Your task to perform on an android device: set default search engine in the chrome app Image 0: 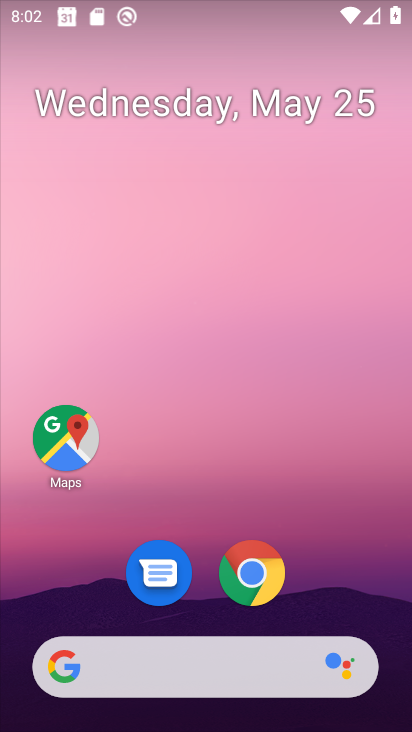
Step 0: click (243, 571)
Your task to perform on an android device: set default search engine in the chrome app Image 1: 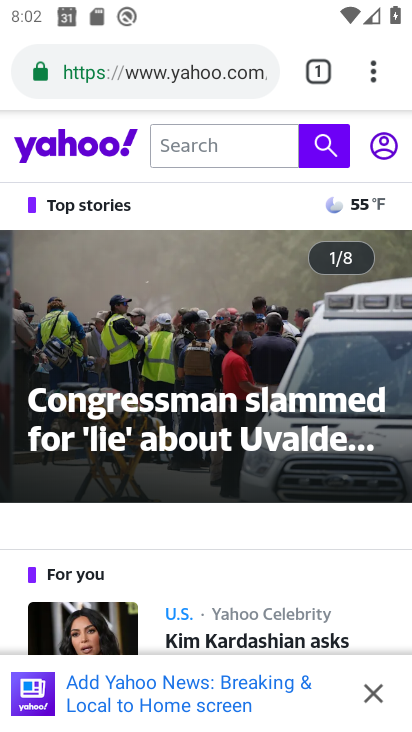
Step 1: click (371, 70)
Your task to perform on an android device: set default search engine in the chrome app Image 2: 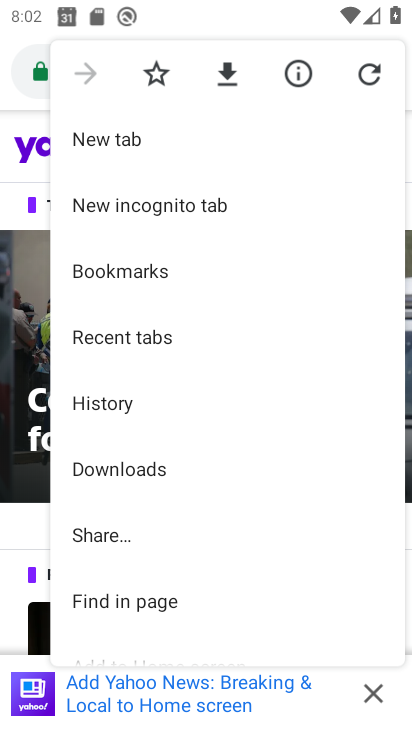
Step 2: drag from (250, 615) to (248, 339)
Your task to perform on an android device: set default search engine in the chrome app Image 3: 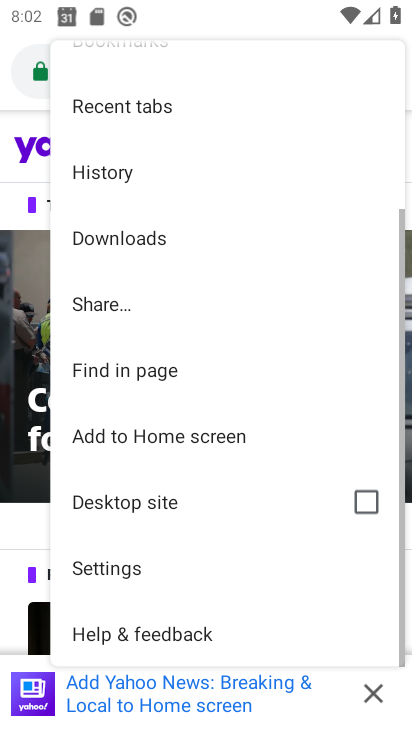
Step 3: click (130, 569)
Your task to perform on an android device: set default search engine in the chrome app Image 4: 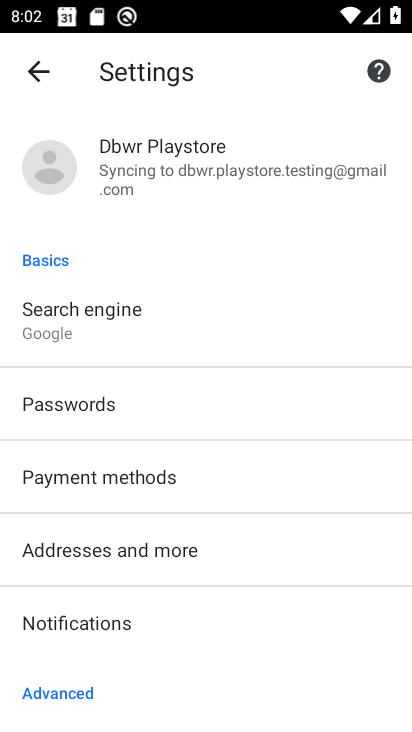
Step 4: click (73, 317)
Your task to perform on an android device: set default search engine in the chrome app Image 5: 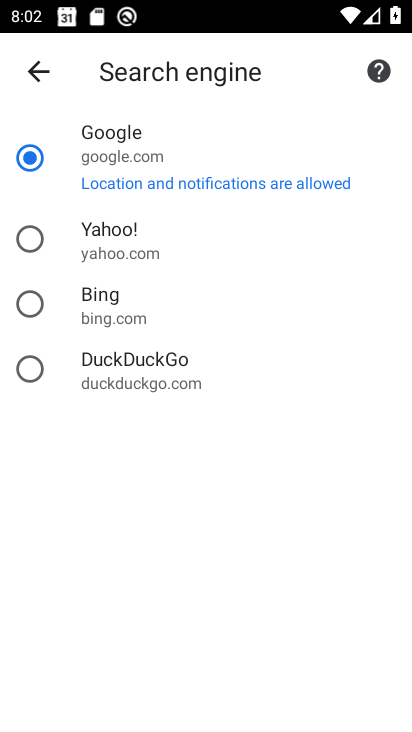
Step 5: task complete